Your task to perform on an android device: Is it going to rain this weekend? Image 0: 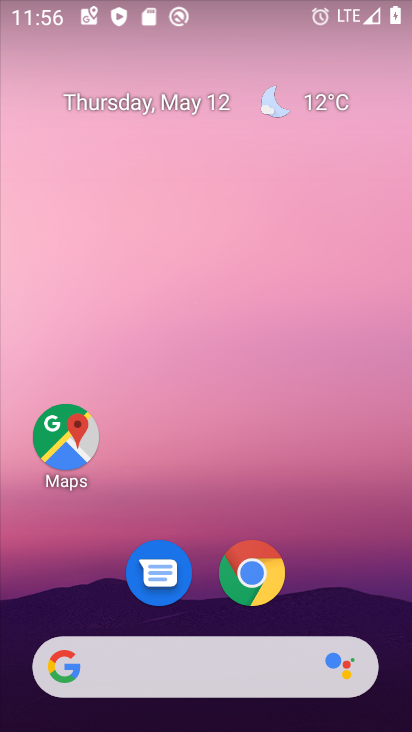
Step 0: click (67, 461)
Your task to perform on an android device: Is it going to rain this weekend? Image 1: 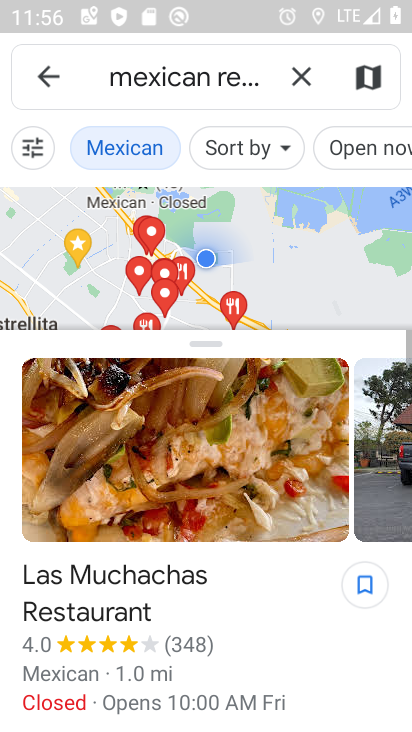
Step 1: press home button
Your task to perform on an android device: Is it going to rain this weekend? Image 2: 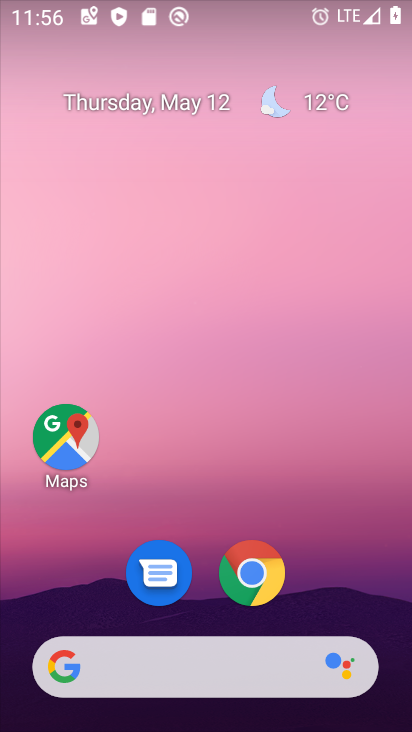
Step 2: click (164, 670)
Your task to perform on an android device: Is it going to rain this weekend? Image 3: 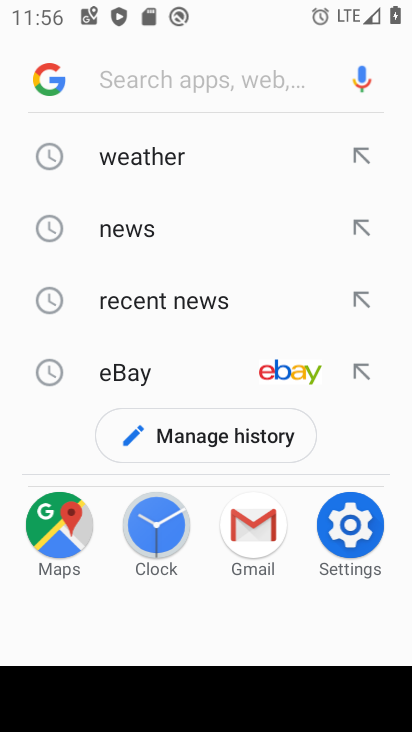
Step 3: type " Is it going to rain this weekend?"
Your task to perform on an android device: Is it going to rain this weekend? Image 4: 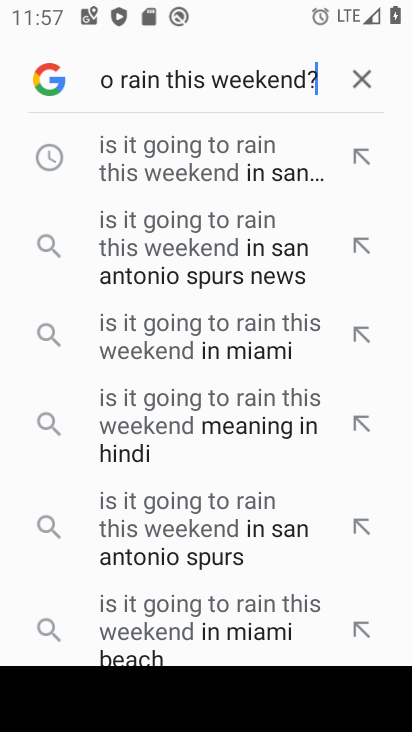
Step 4: type " near me "
Your task to perform on an android device: Is it going to rain this weekend? Image 5: 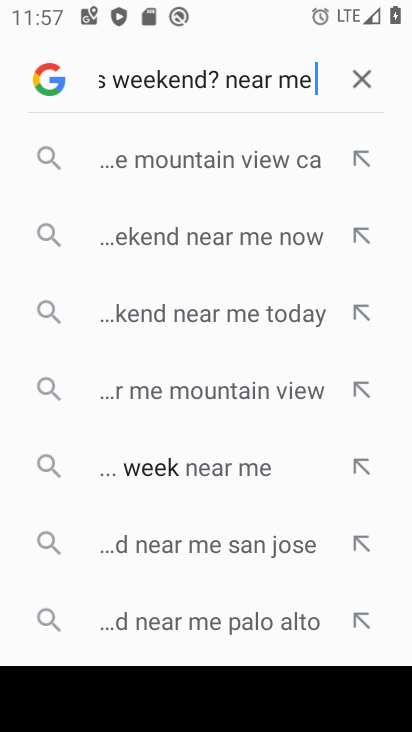
Step 5: click (274, 170)
Your task to perform on an android device: Is it going to rain this weekend? Image 6: 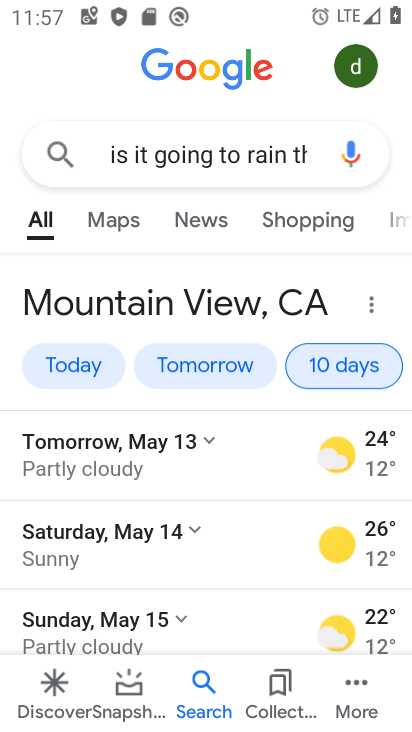
Step 6: task complete